Your task to perform on an android device: Go to internet settings Image 0: 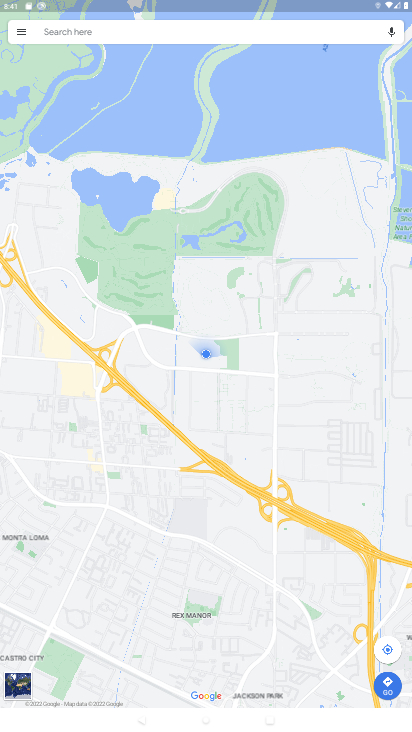
Step 0: press home button
Your task to perform on an android device: Go to internet settings Image 1: 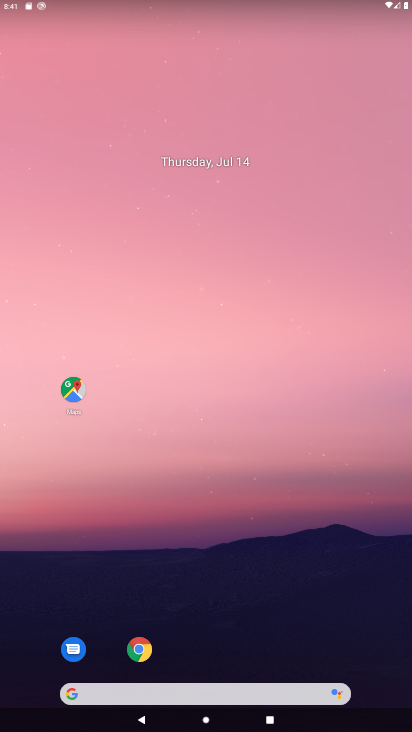
Step 1: drag from (177, 304) to (187, 13)
Your task to perform on an android device: Go to internet settings Image 2: 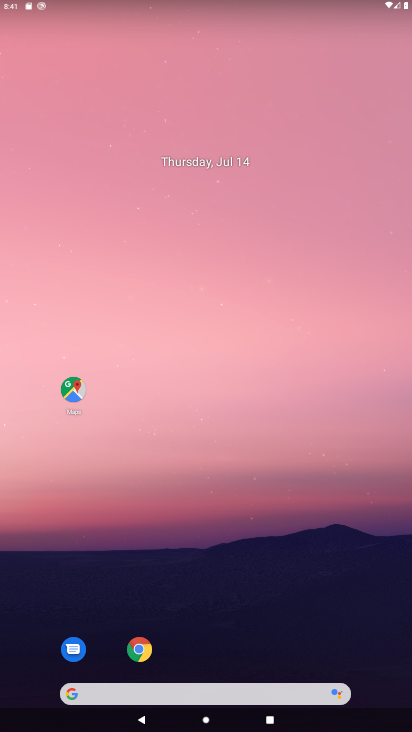
Step 2: drag from (215, 654) to (282, 3)
Your task to perform on an android device: Go to internet settings Image 3: 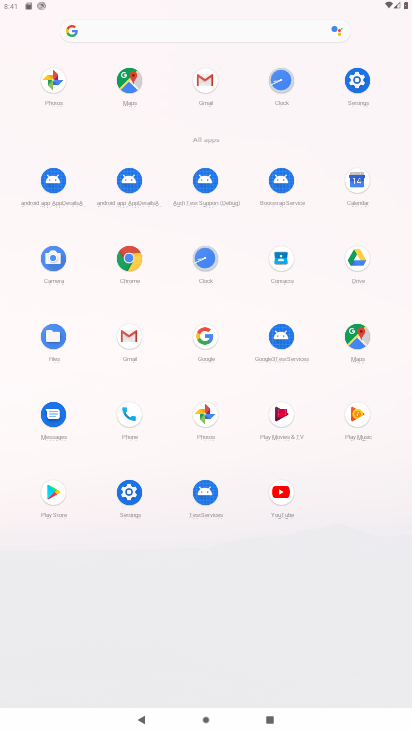
Step 3: click (135, 511)
Your task to perform on an android device: Go to internet settings Image 4: 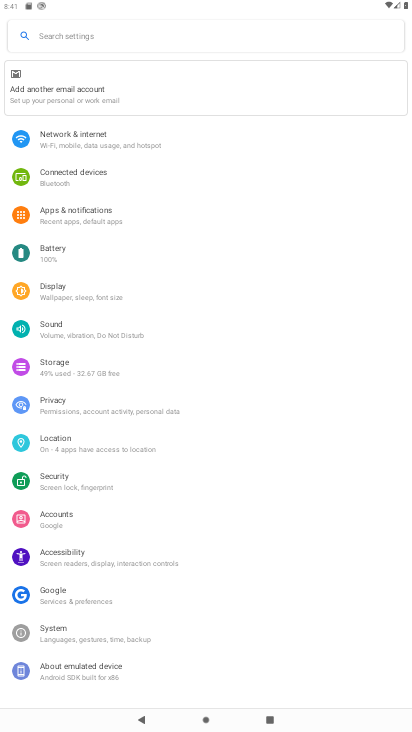
Step 4: click (127, 140)
Your task to perform on an android device: Go to internet settings Image 5: 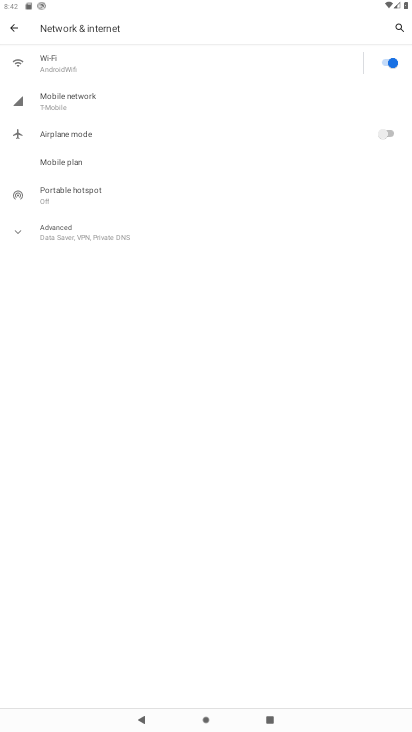
Step 5: task complete